Your task to perform on an android device: turn on improve location accuracy Image 0: 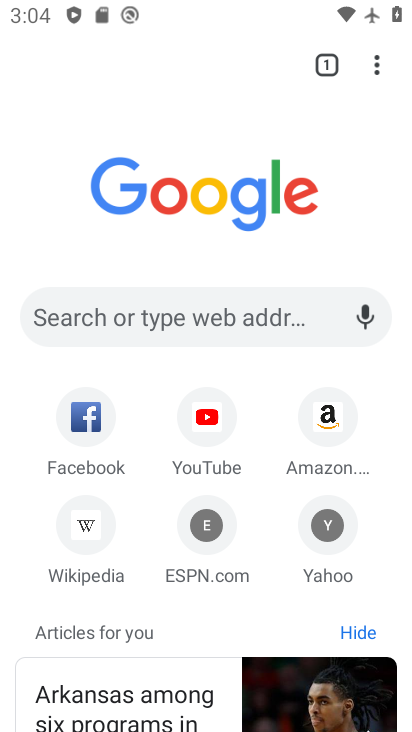
Step 0: press home button
Your task to perform on an android device: turn on improve location accuracy Image 1: 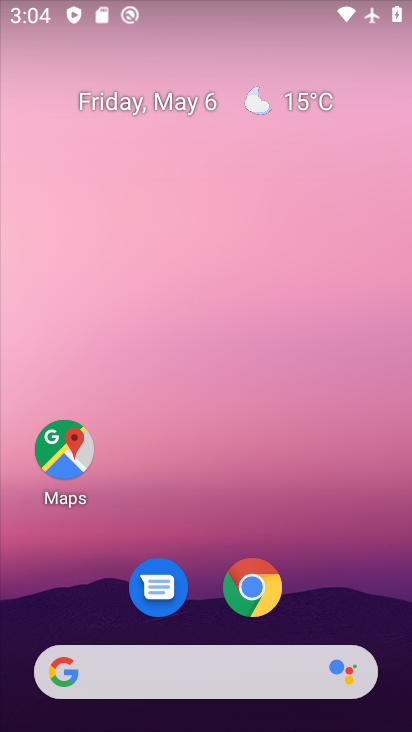
Step 1: drag from (208, 621) to (208, 103)
Your task to perform on an android device: turn on improve location accuracy Image 2: 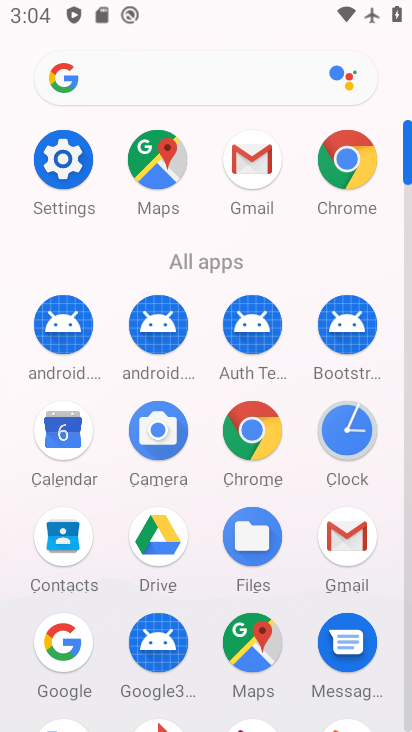
Step 2: click (65, 153)
Your task to perform on an android device: turn on improve location accuracy Image 3: 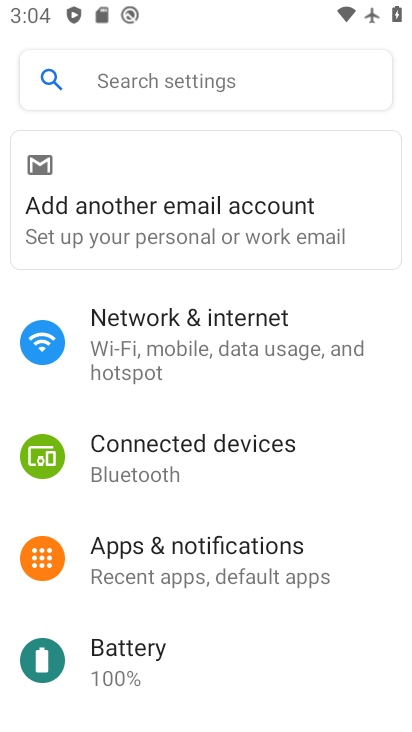
Step 3: drag from (178, 622) to (199, 157)
Your task to perform on an android device: turn on improve location accuracy Image 4: 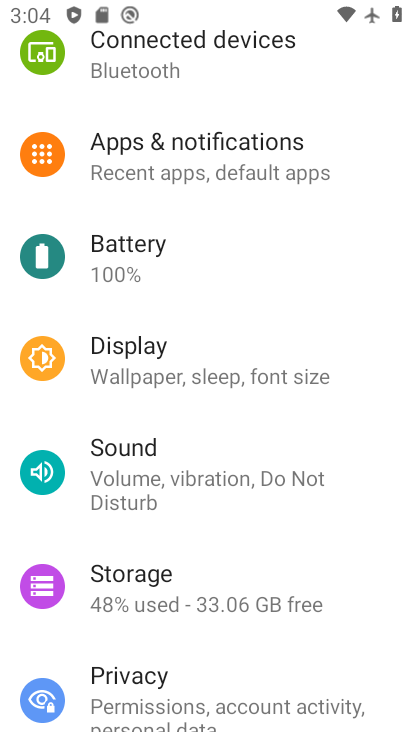
Step 4: drag from (176, 666) to (190, 50)
Your task to perform on an android device: turn on improve location accuracy Image 5: 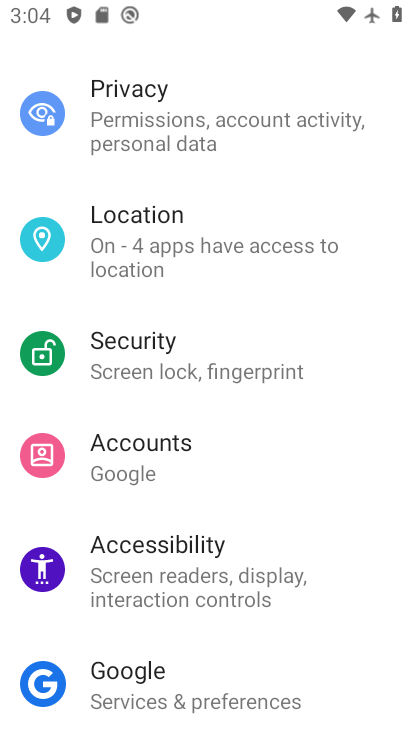
Step 5: click (157, 236)
Your task to perform on an android device: turn on improve location accuracy Image 6: 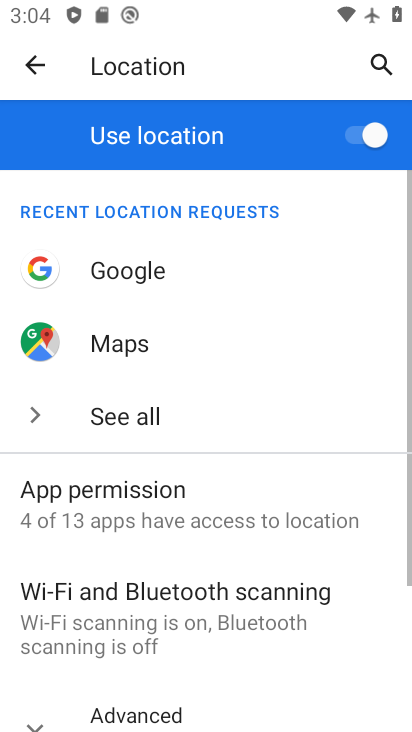
Step 6: drag from (173, 611) to (199, 107)
Your task to perform on an android device: turn on improve location accuracy Image 7: 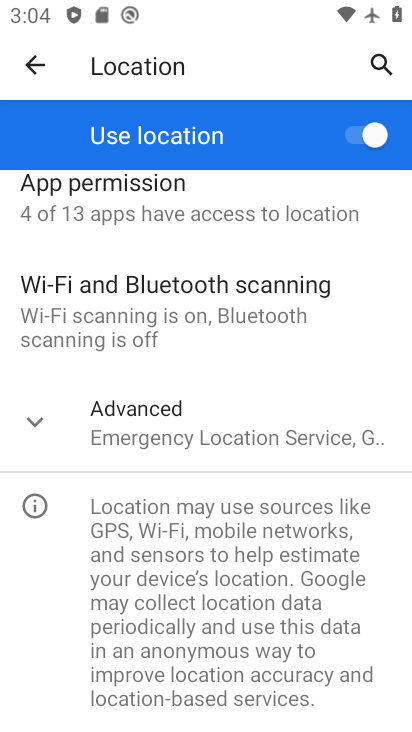
Step 7: click (39, 418)
Your task to perform on an android device: turn on improve location accuracy Image 8: 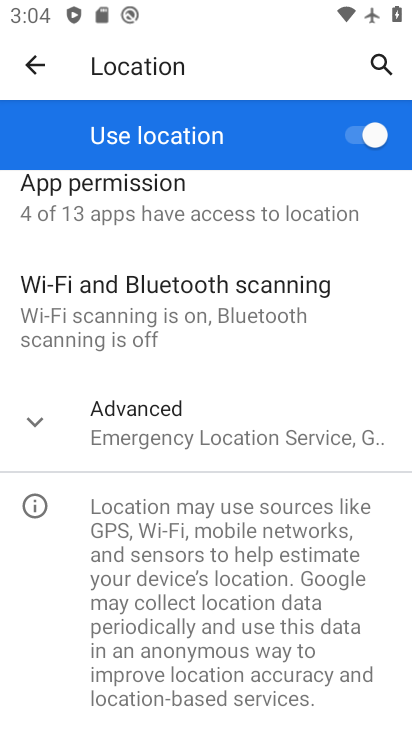
Step 8: click (39, 418)
Your task to perform on an android device: turn on improve location accuracy Image 9: 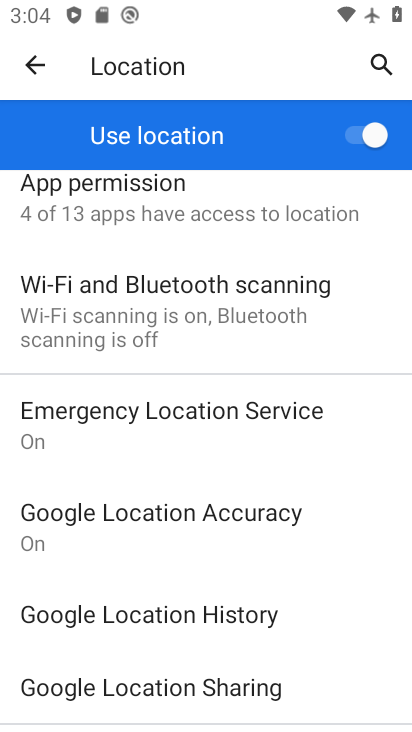
Step 9: click (187, 525)
Your task to perform on an android device: turn on improve location accuracy Image 10: 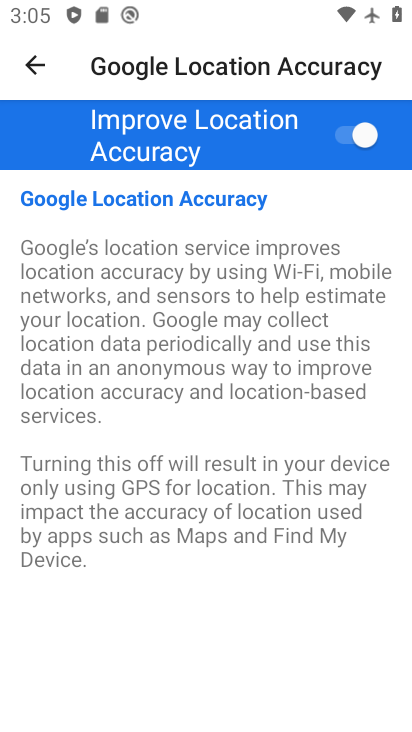
Step 10: task complete